Your task to perform on an android device: see creations saved in the google photos Image 0: 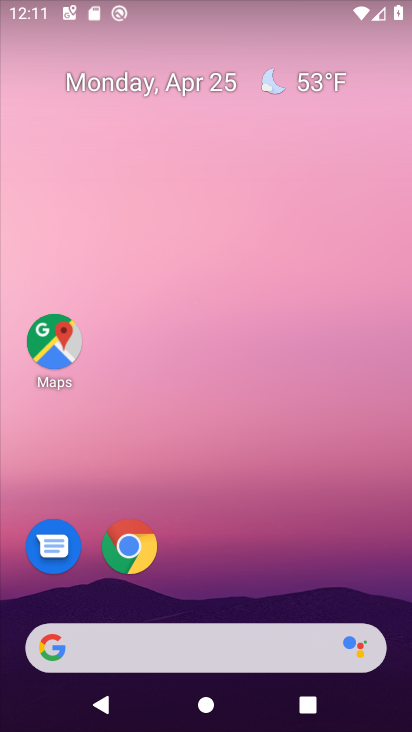
Step 0: drag from (319, 589) to (316, 0)
Your task to perform on an android device: see creations saved in the google photos Image 1: 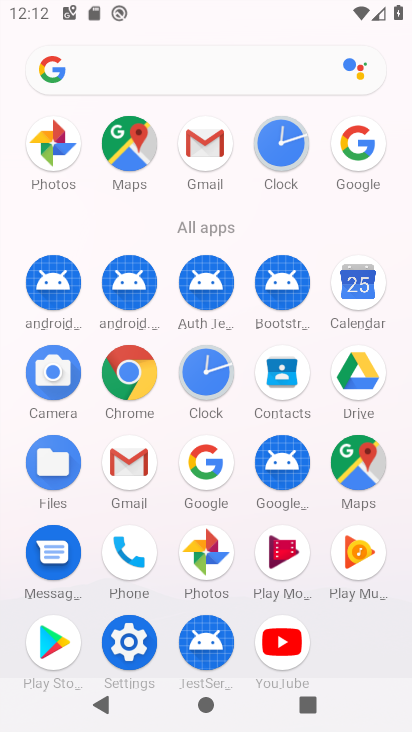
Step 1: click (196, 539)
Your task to perform on an android device: see creations saved in the google photos Image 2: 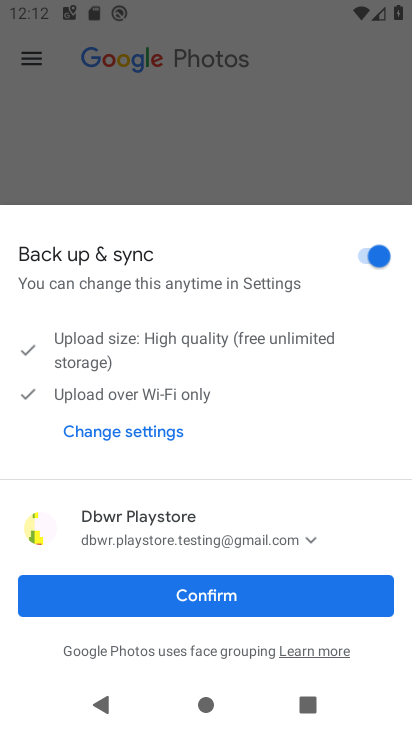
Step 2: click (170, 601)
Your task to perform on an android device: see creations saved in the google photos Image 3: 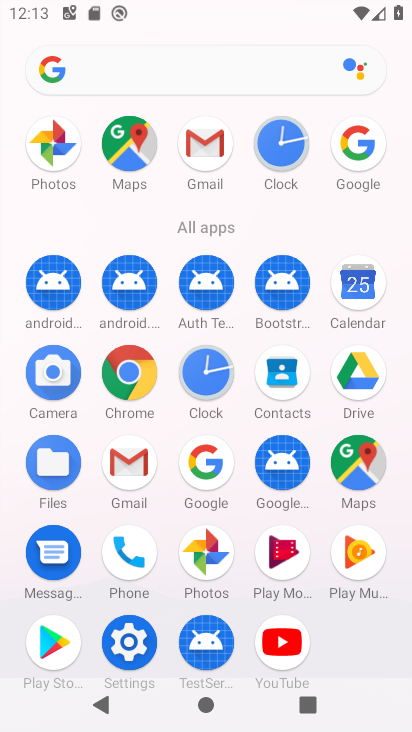
Step 3: click (201, 550)
Your task to perform on an android device: see creations saved in the google photos Image 4: 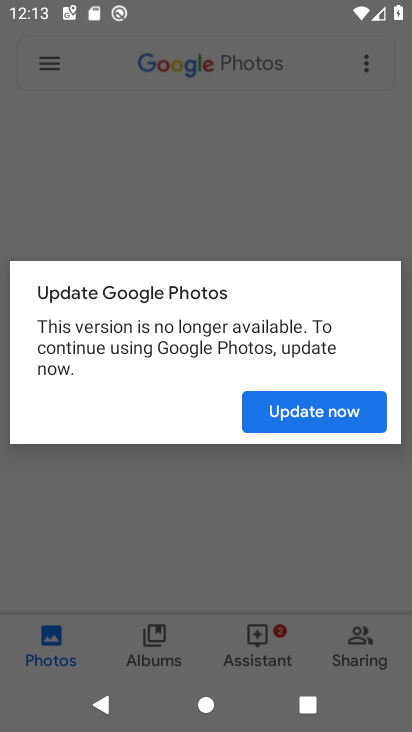
Step 4: click (325, 398)
Your task to perform on an android device: see creations saved in the google photos Image 5: 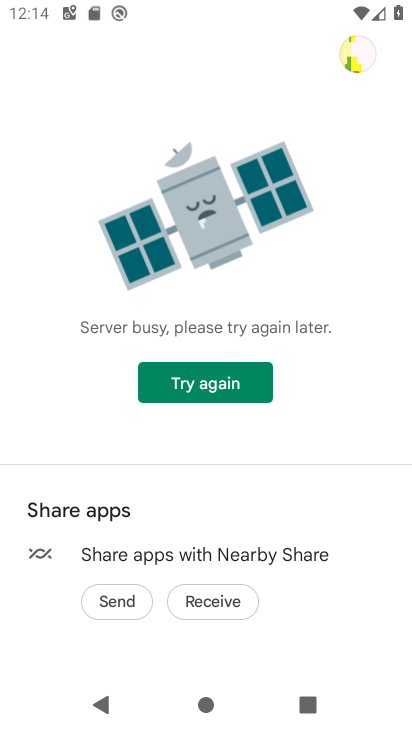
Step 5: task complete